Your task to perform on an android device: Go to Android settings Image 0: 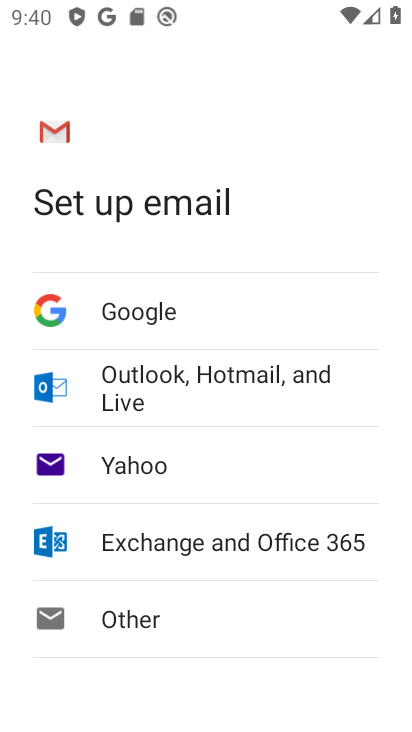
Step 0: press home button
Your task to perform on an android device: Go to Android settings Image 1: 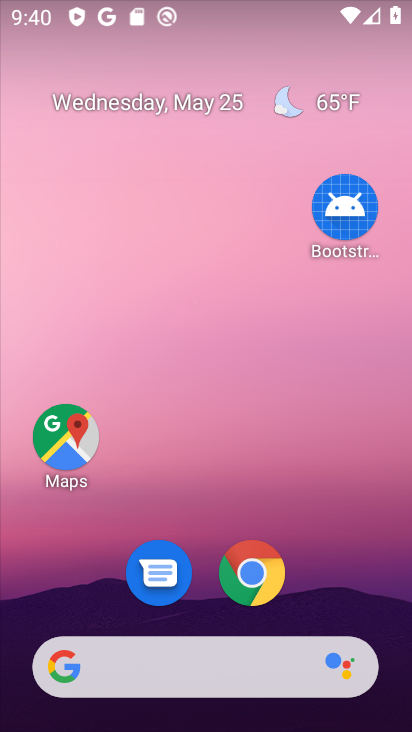
Step 1: drag from (337, 573) to (291, 9)
Your task to perform on an android device: Go to Android settings Image 2: 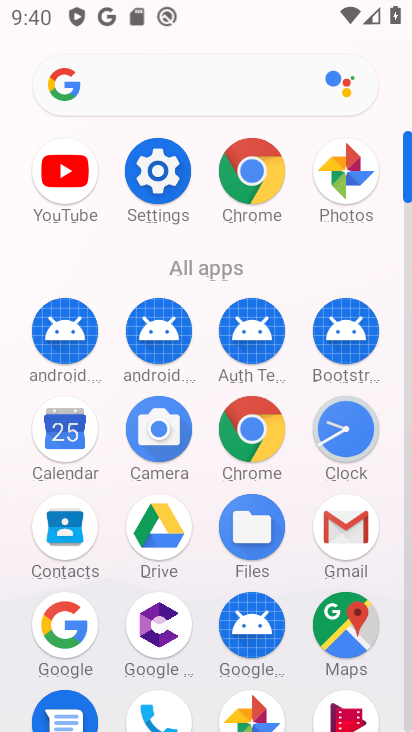
Step 2: click (146, 167)
Your task to perform on an android device: Go to Android settings Image 3: 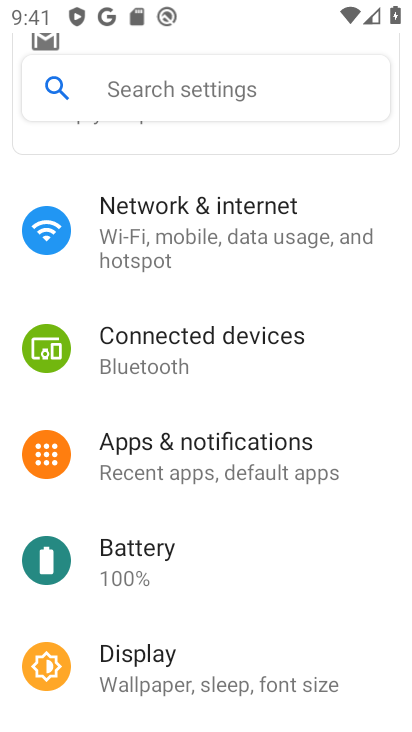
Step 3: task complete